Your task to perform on an android device: change notification settings in the gmail app Image 0: 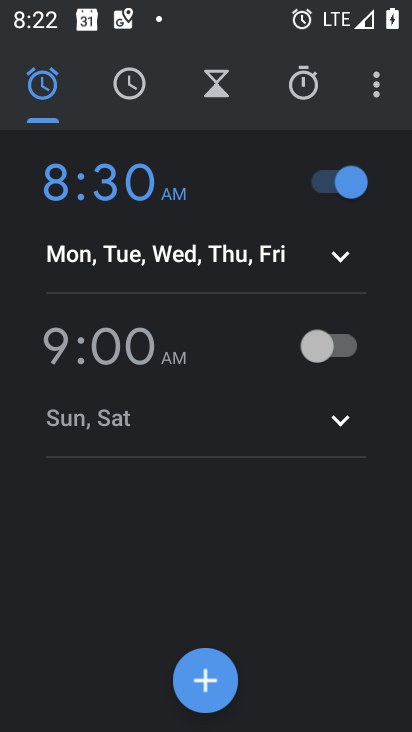
Step 0: press home button
Your task to perform on an android device: change notification settings in the gmail app Image 1: 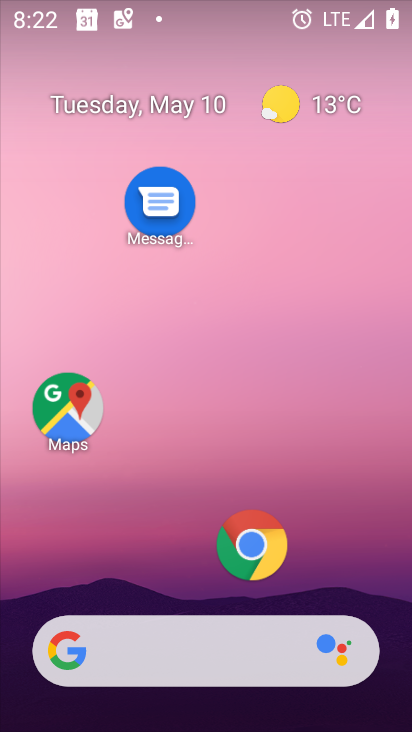
Step 1: drag from (206, 584) to (186, 68)
Your task to perform on an android device: change notification settings in the gmail app Image 2: 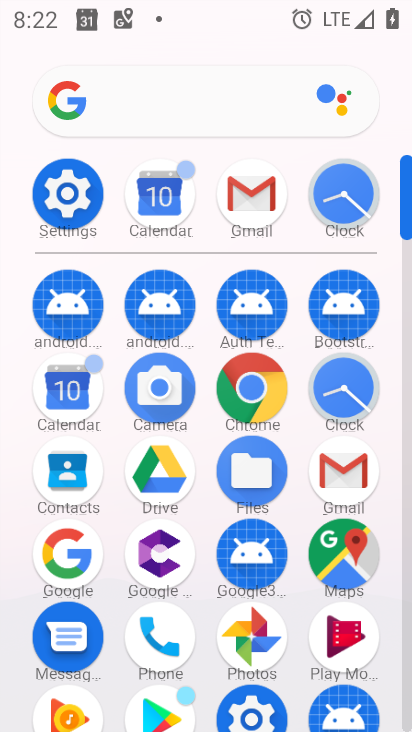
Step 2: click (249, 188)
Your task to perform on an android device: change notification settings in the gmail app Image 3: 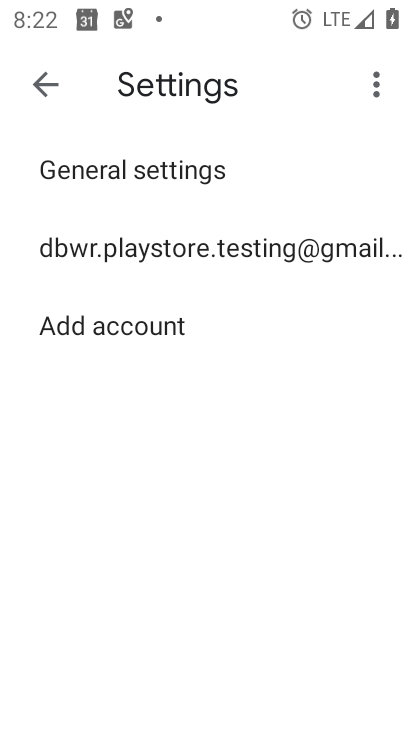
Step 3: click (238, 163)
Your task to perform on an android device: change notification settings in the gmail app Image 4: 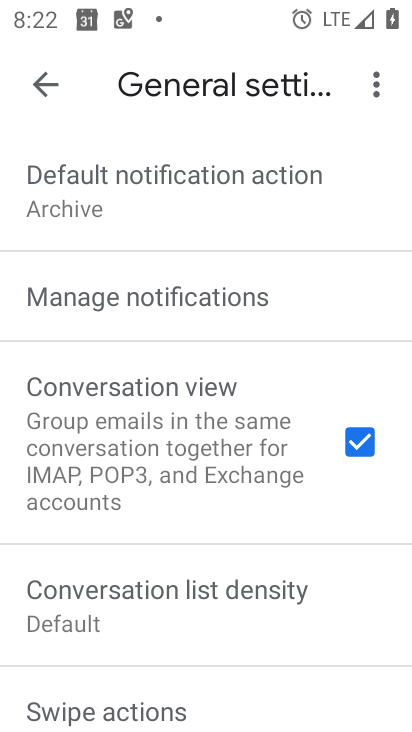
Step 4: click (275, 294)
Your task to perform on an android device: change notification settings in the gmail app Image 5: 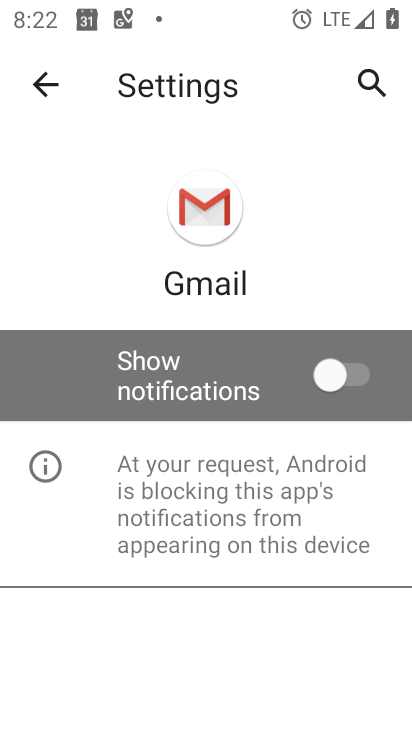
Step 5: click (353, 369)
Your task to perform on an android device: change notification settings in the gmail app Image 6: 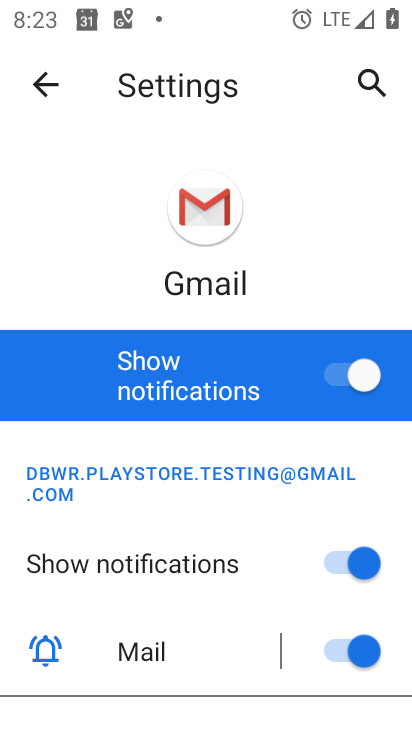
Step 6: task complete